Your task to perform on an android device: turn on improve location accuracy Image 0: 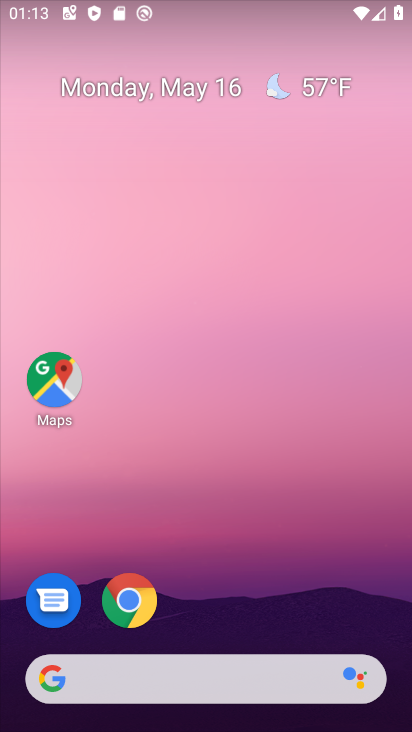
Step 0: drag from (197, 581) to (272, 17)
Your task to perform on an android device: turn on improve location accuracy Image 1: 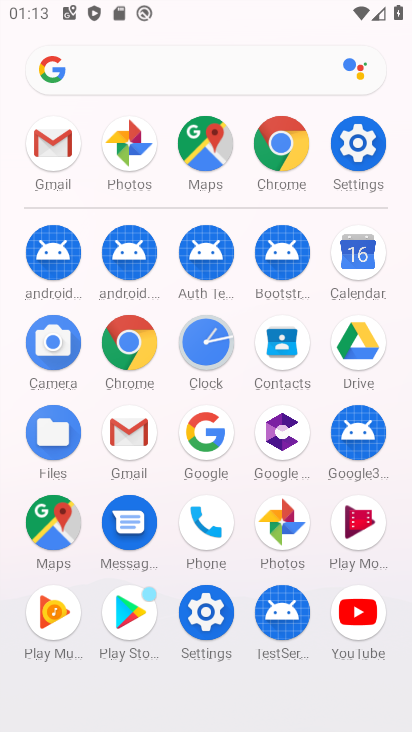
Step 1: click (360, 145)
Your task to perform on an android device: turn on improve location accuracy Image 2: 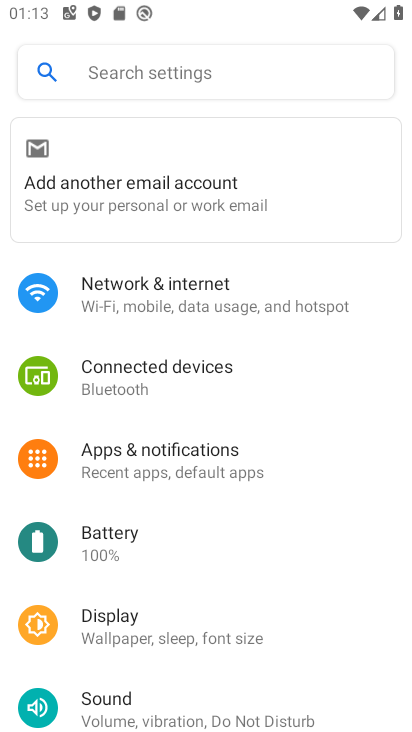
Step 2: drag from (182, 611) to (257, 137)
Your task to perform on an android device: turn on improve location accuracy Image 3: 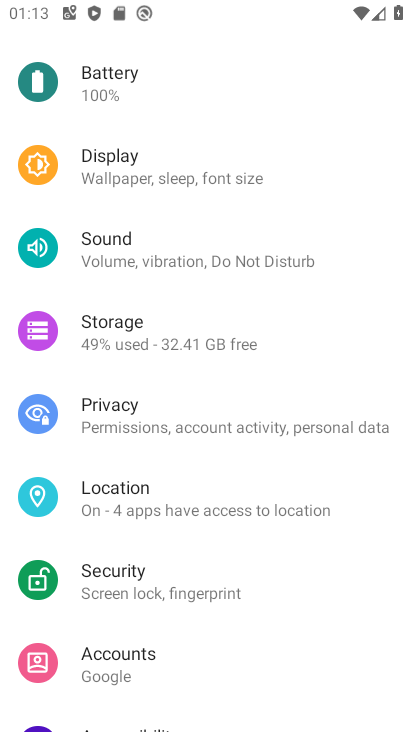
Step 3: click (149, 504)
Your task to perform on an android device: turn on improve location accuracy Image 4: 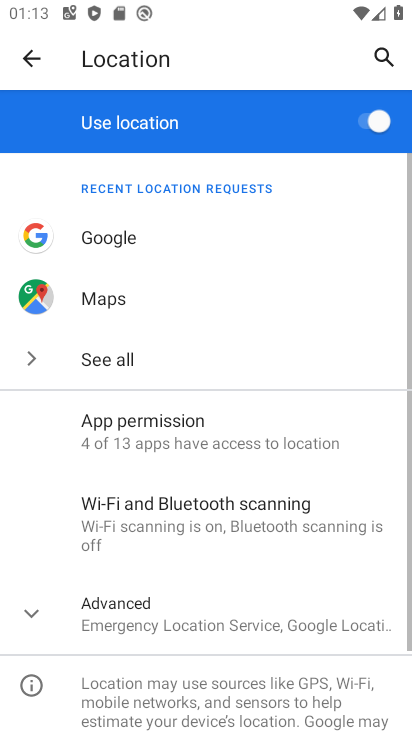
Step 4: click (172, 606)
Your task to perform on an android device: turn on improve location accuracy Image 5: 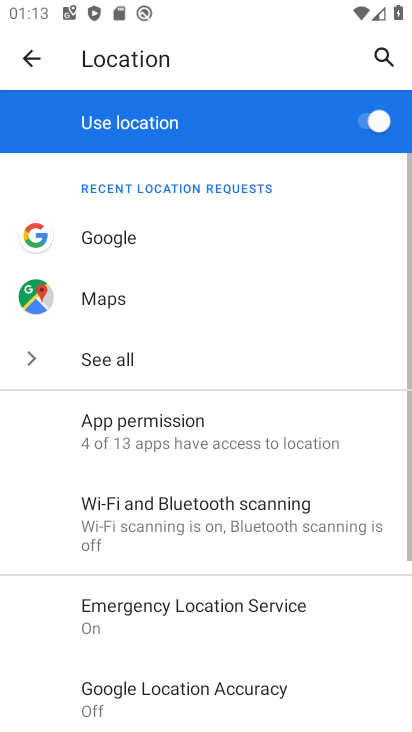
Step 5: drag from (176, 667) to (219, 369)
Your task to perform on an android device: turn on improve location accuracy Image 6: 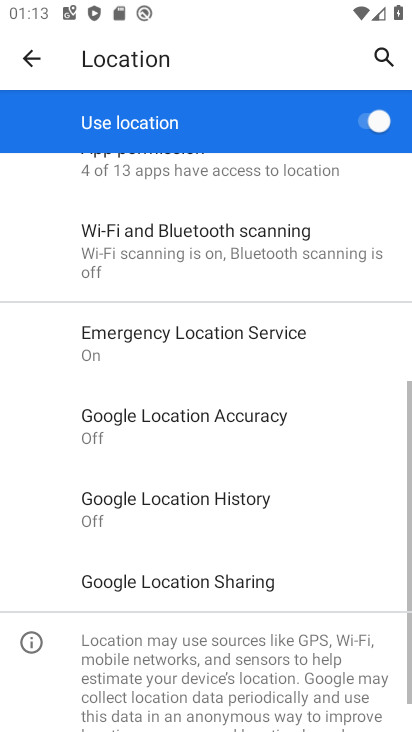
Step 6: drag from (208, 510) to (208, 395)
Your task to perform on an android device: turn on improve location accuracy Image 7: 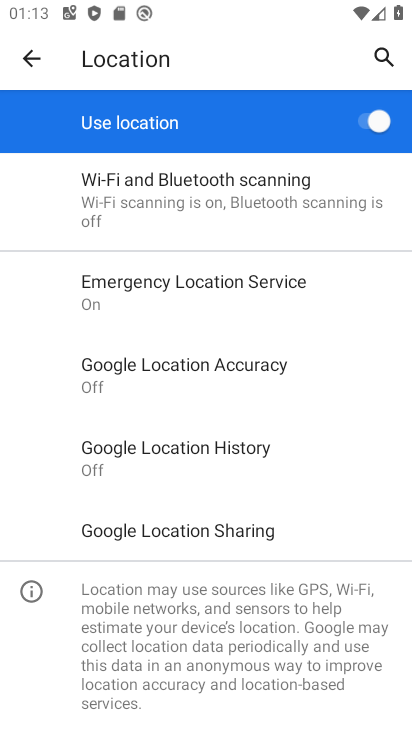
Step 7: click (154, 361)
Your task to perform on an android device: turn on improve location accuracy Image 8: 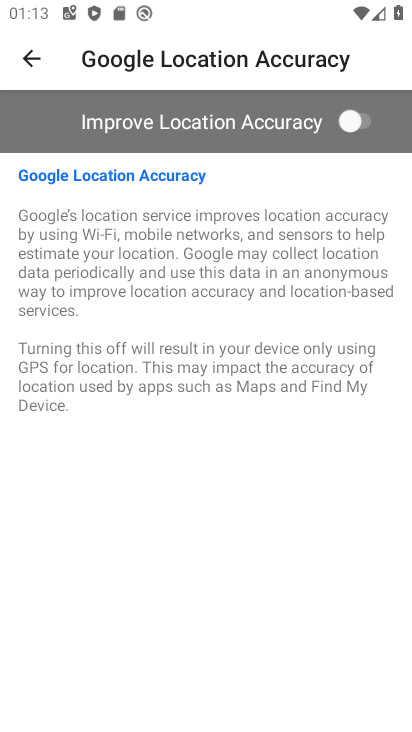
Step 8: click (346, 121)
Your task to perform on an android device: turn on improve location accuracy Image 9: 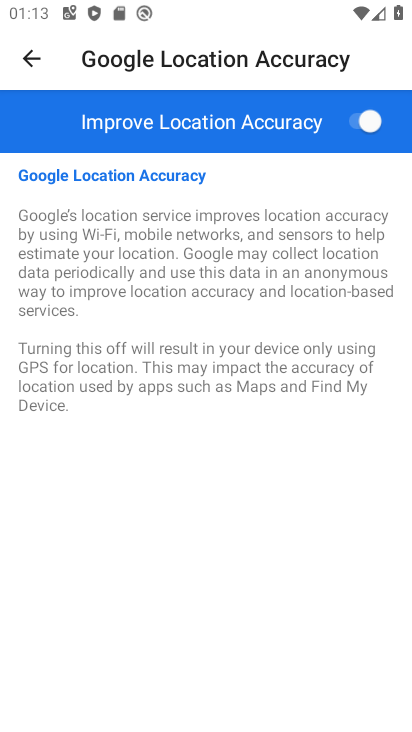
Step 9: task complete